Your task to perform on an android device: open wifi settings Image 0: 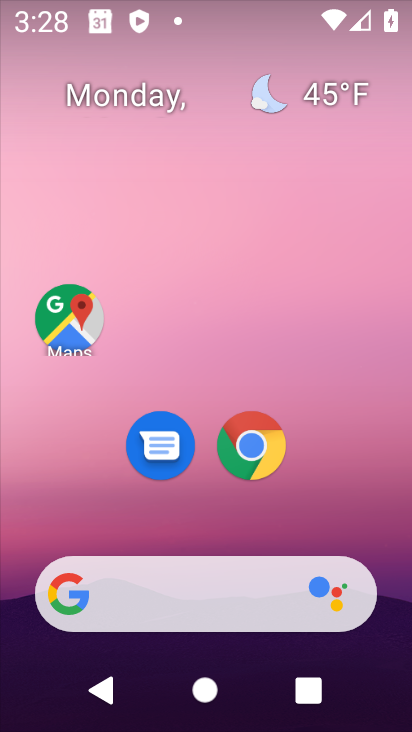
Step 0: drag from (299, 526) to (308, 172)
Your task to perform on an android device: open wifi settings Image 1: 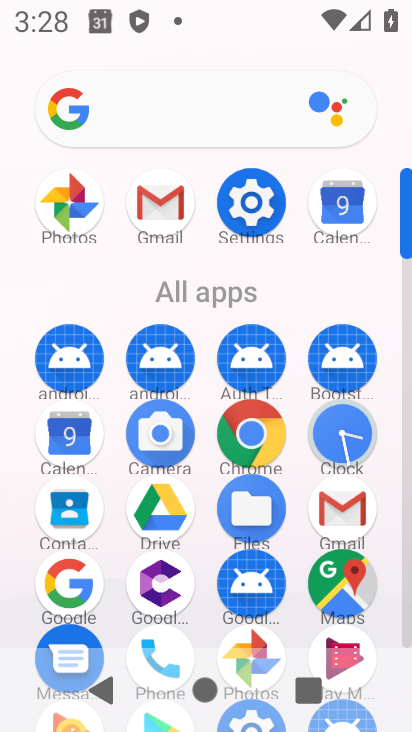
Step 1: click (265, 214)
Your task to perform on an android device: open wifi settings Image 2: 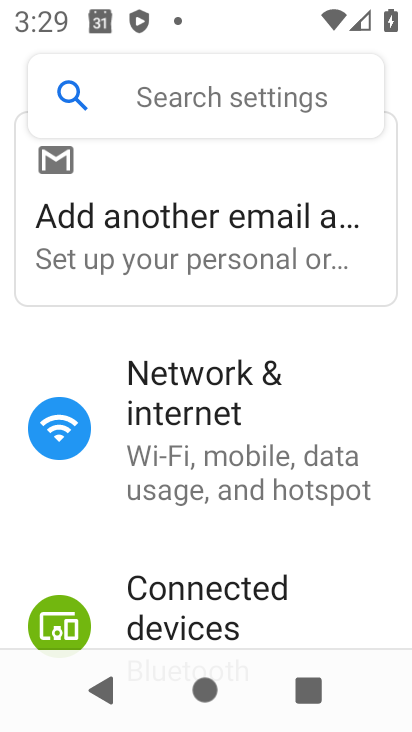
Step 2: click (229, 473)
Your task to perform on an android device: open wifi settings Image 3: 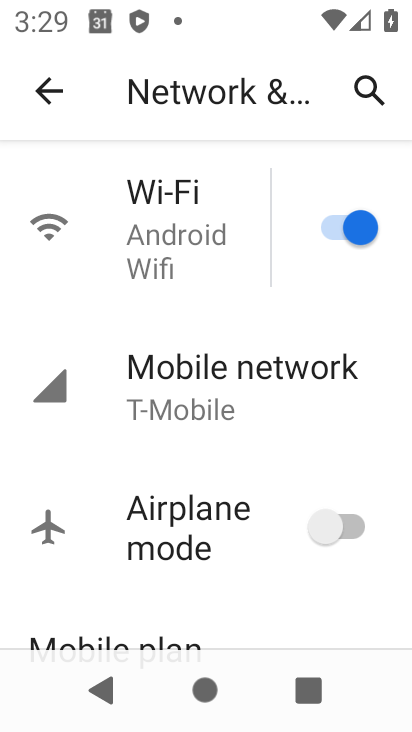
Step 3: click (177, 226)
Your task to perform on an android device: open wifi settings Image 4: 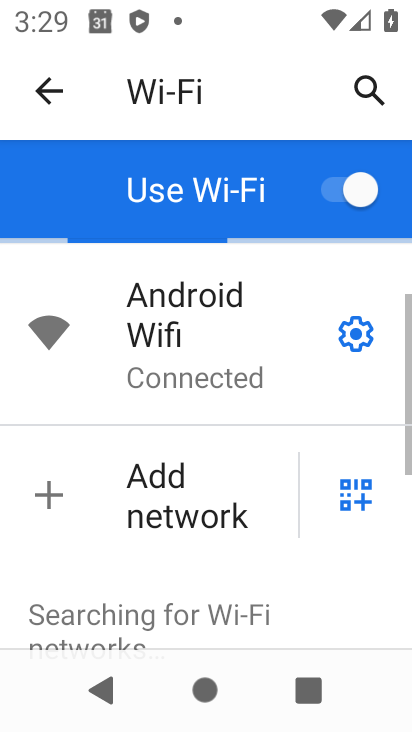
Step 4: task complete